Your task to perform on an android device: Open eBay Image 0: 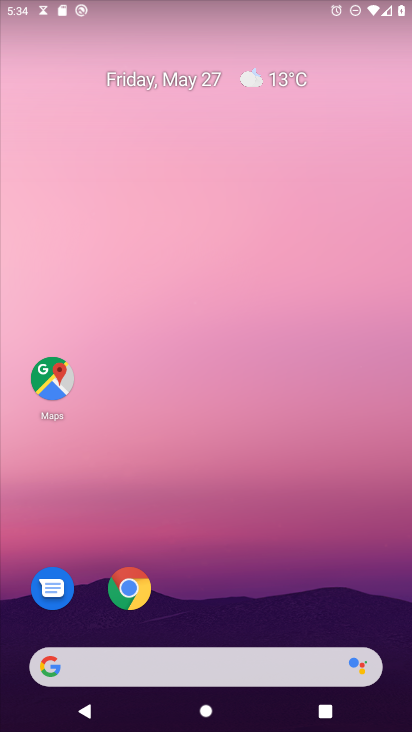
Step 0: click (121, 598)
Your task to perform on an android device: Open eBay Image 1: 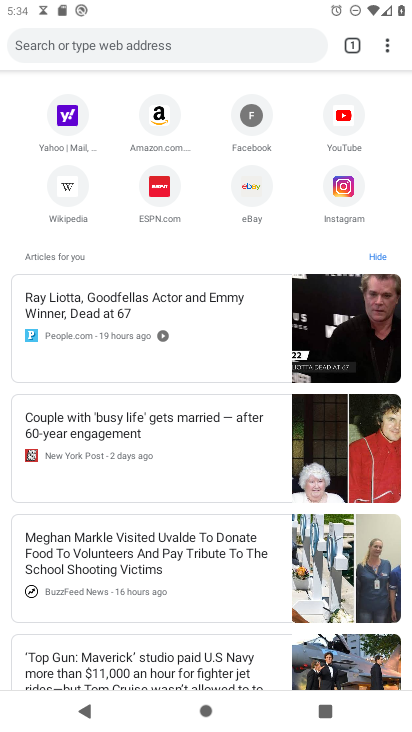
Step 1: click (257, 192)
Your task to perform on an android device: Open eBay Image 2: 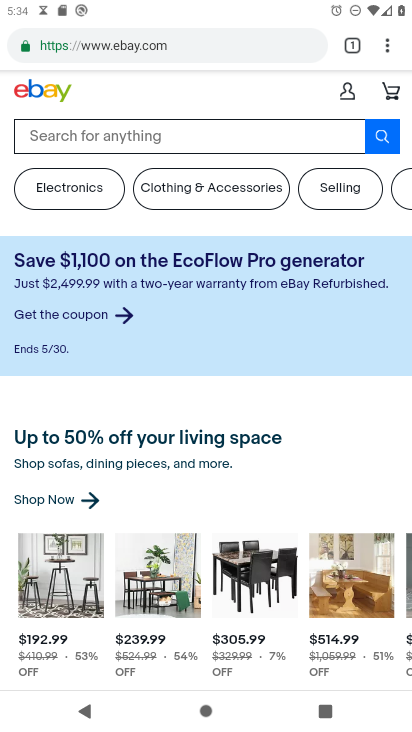
Step 2: task complete